Your task to perform on an android device: open app "Google Translate" Image 0: 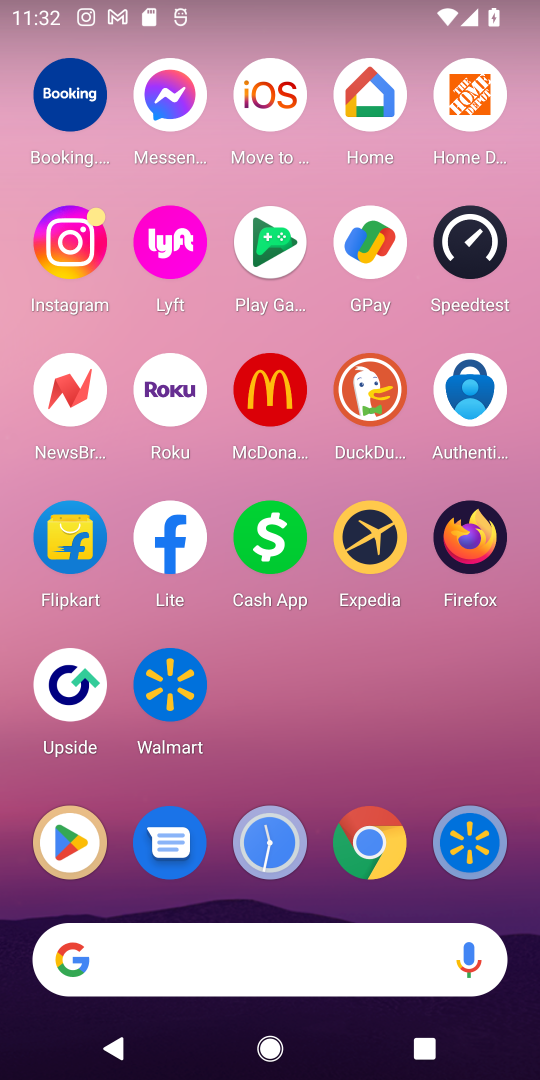
Step 0: click (78, 839)
Your task to perform on an android device: open app "Google Translate" Image 1: 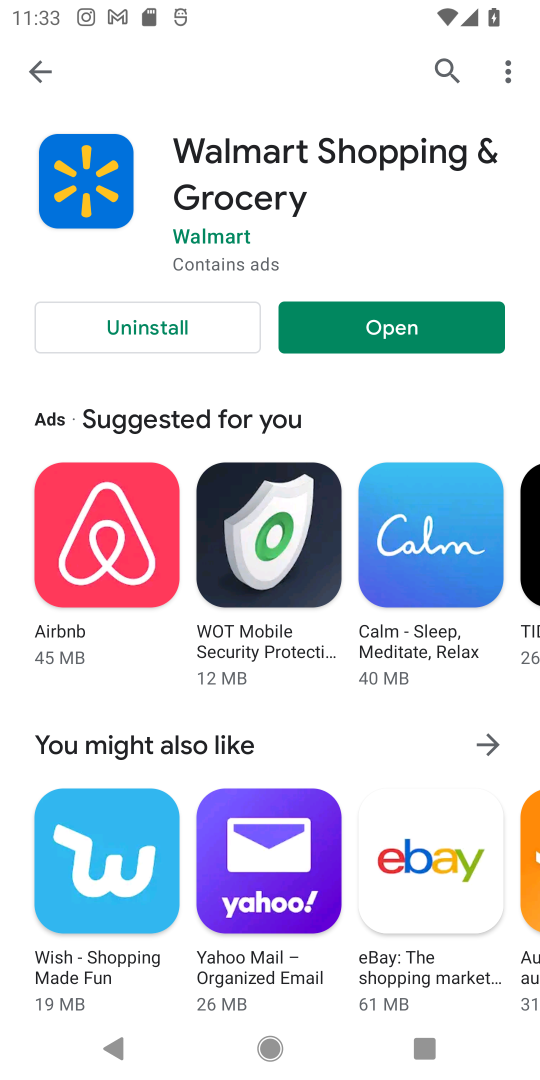
Step 1: click (446, 54)
Your task to perform on an android device: open app "Google Translate" Image 2: 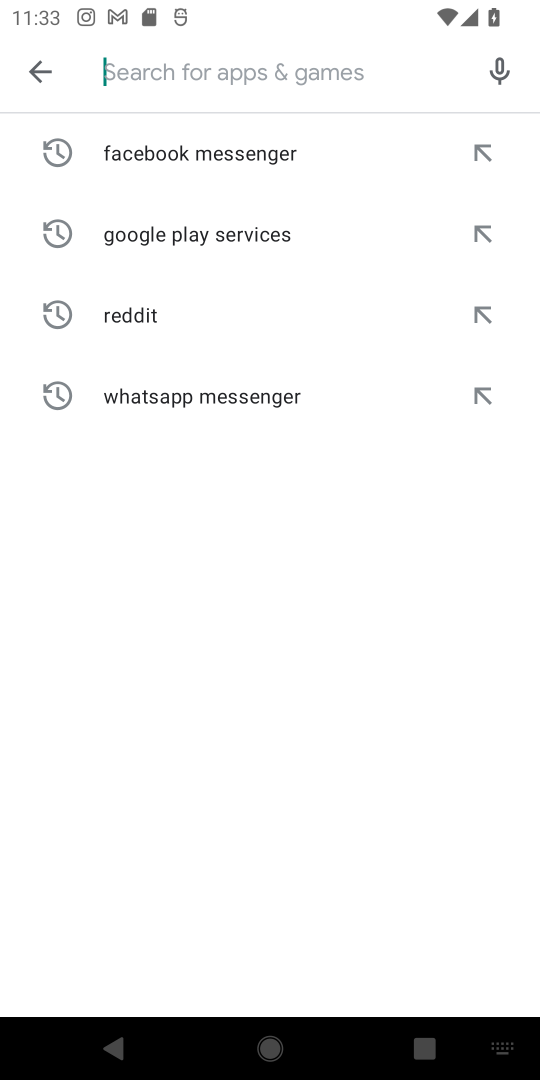
Step 2: click (219, 43)
Your task to perform on an android device: open app "Google Translate" Image 3: 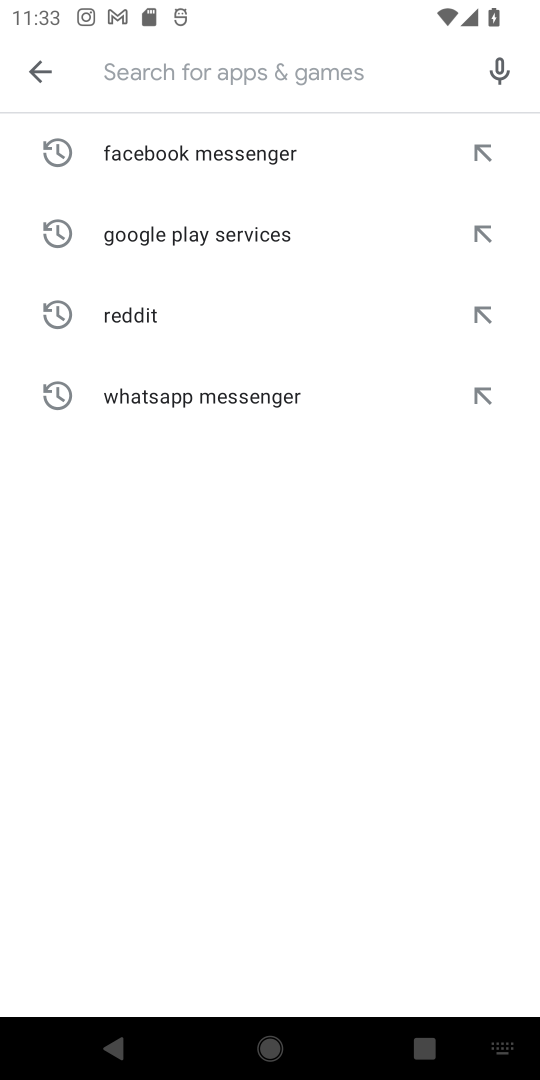
Step 3: type "Google Translate"
Your task to perform on an android device: open app "Google Translate" Image 4: 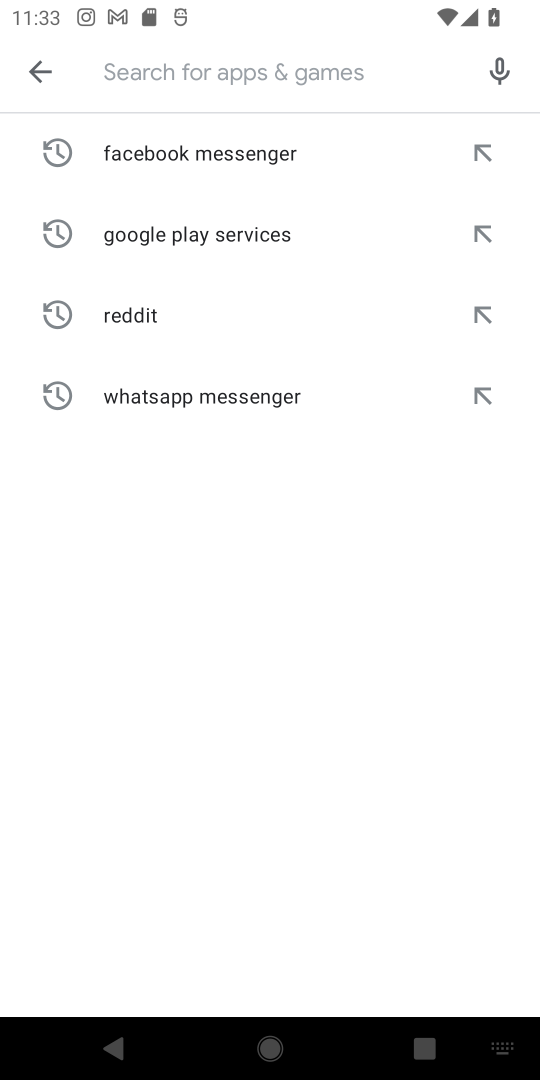
Step 4: click (289, 601)
Your task to perform on an android device: open app "Google Translate" Image 5: 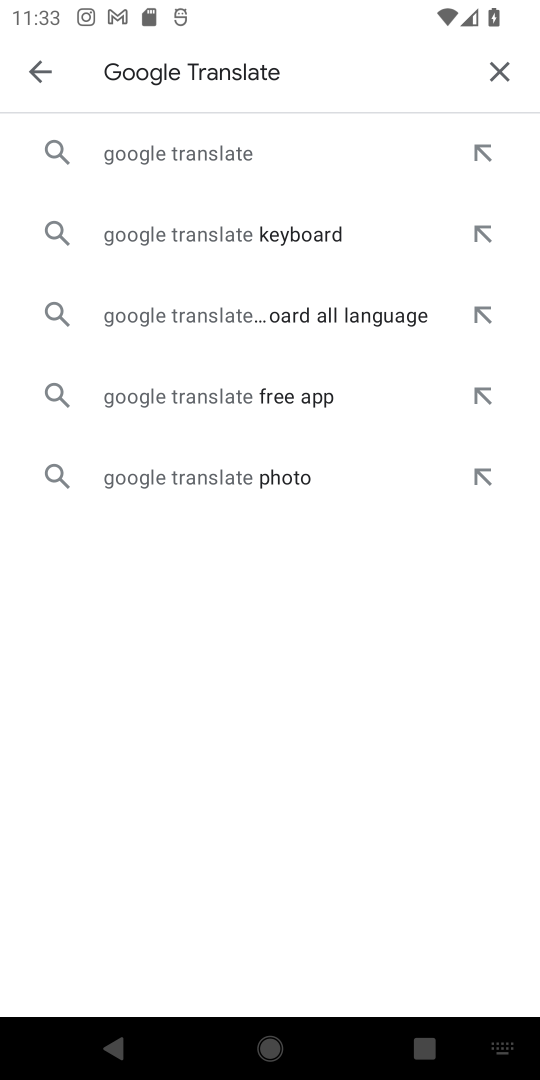
Step 5: click (204, 148)
Your task to perform on an android device: open app "Google Translate" Image 6: 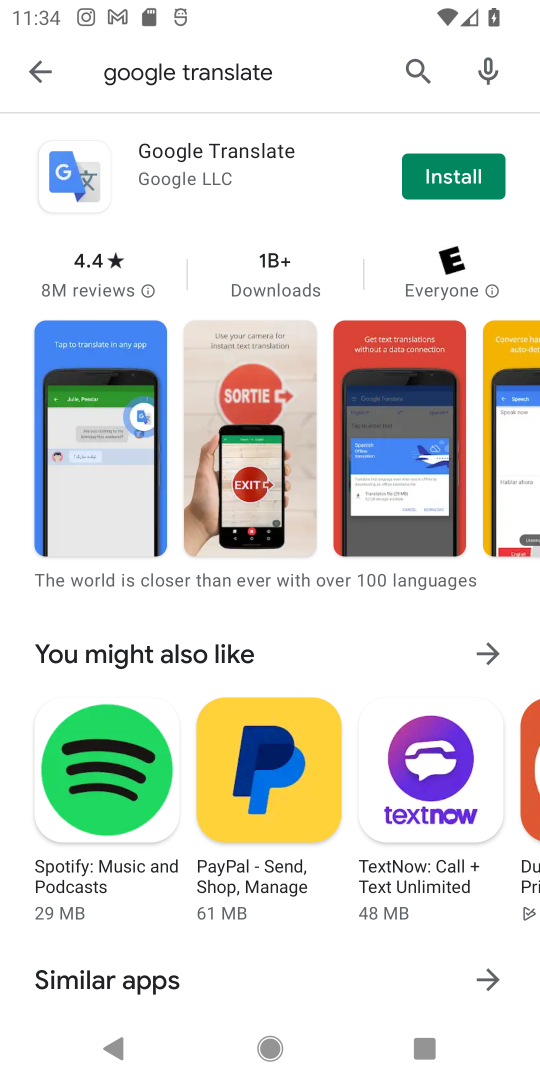
Step 6: task complete